Your task to perform on an android device: Check the news Image 0: 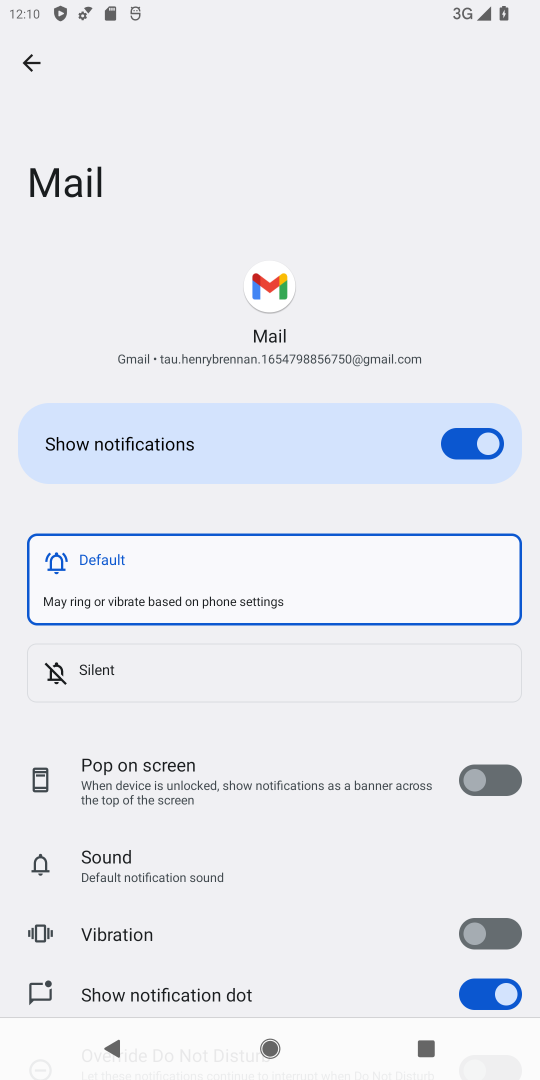
Step 0: drag from (271, 841) to (496, 486)
Your task to perform on an android device: Check the news Image 1: 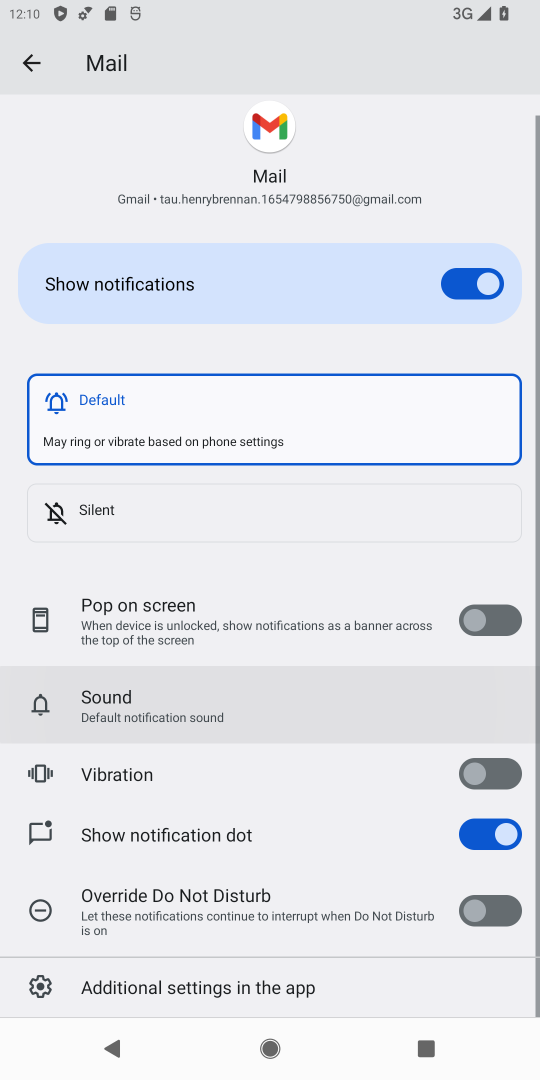
Step 1: press home button
Your task to perform on an android device: Check the news Image 2: 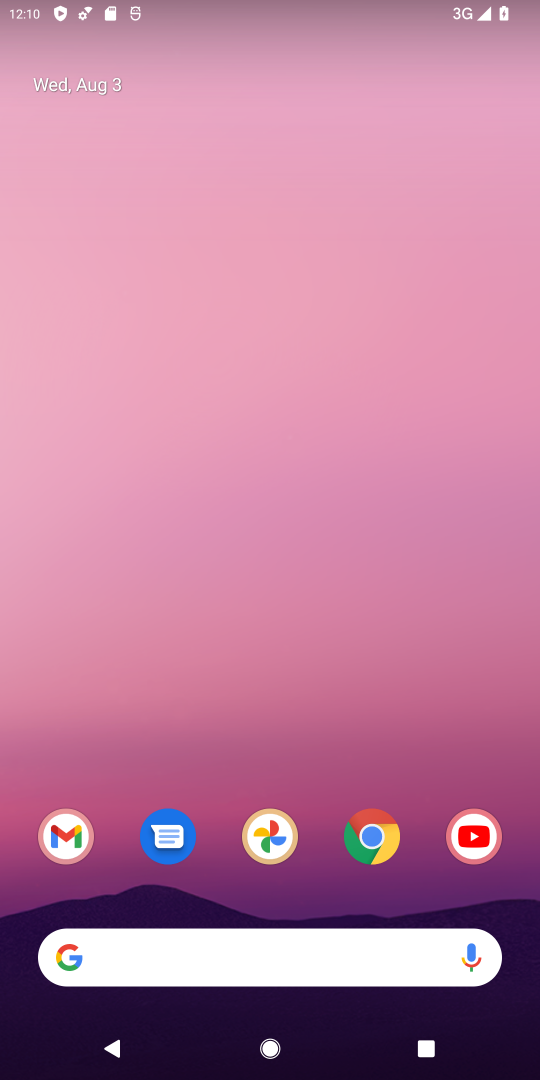
Step 2: drag from (237, 888) to (233, 0)
Your task to perform on an android device: Check the news Image 3: 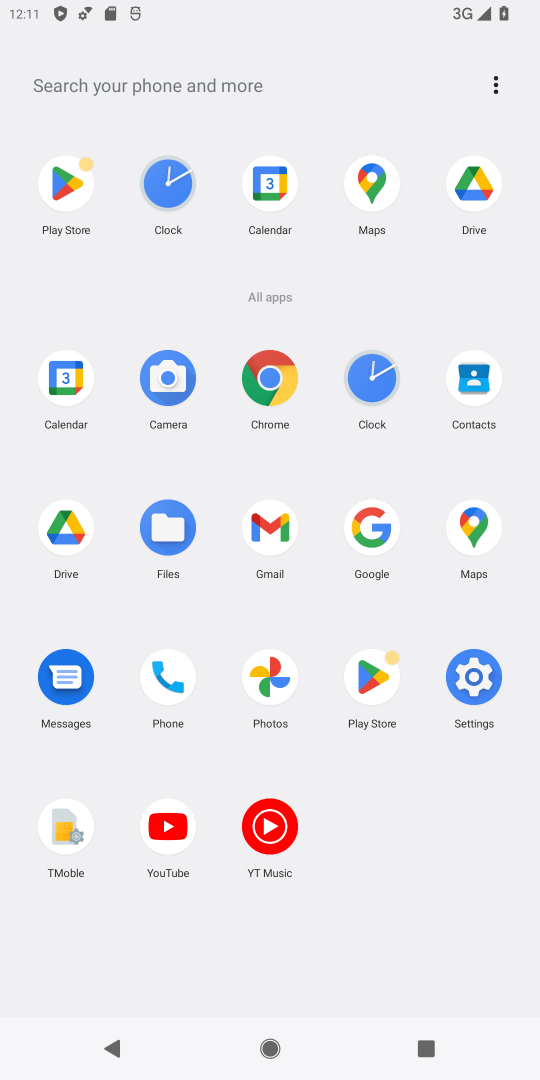
Step 3: click (159, 88)
Your task to perform on an android device: Check the news Image 4: 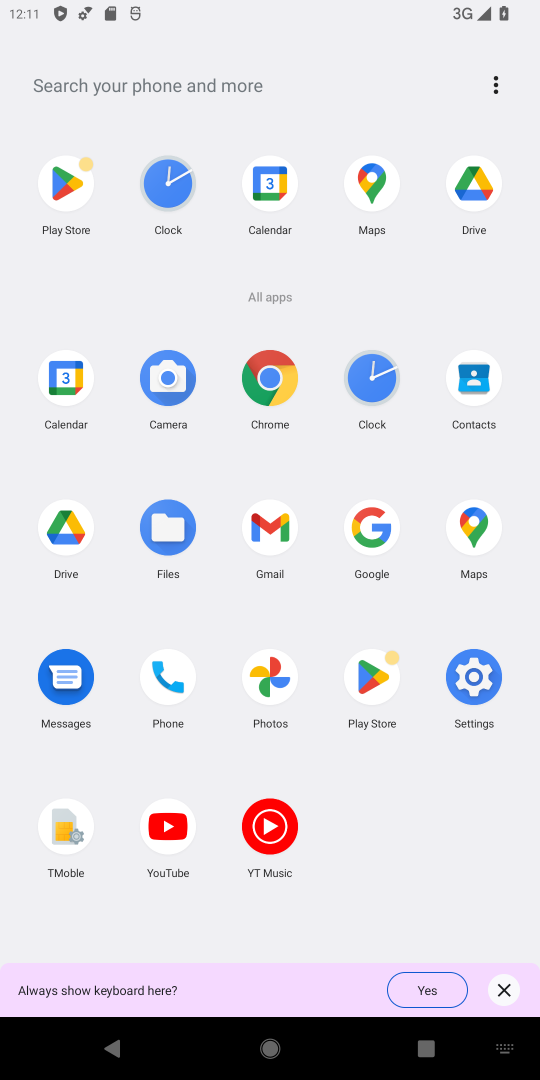
Step 4: type "news"
Your task to perform on an android device: Check the news Image 5: 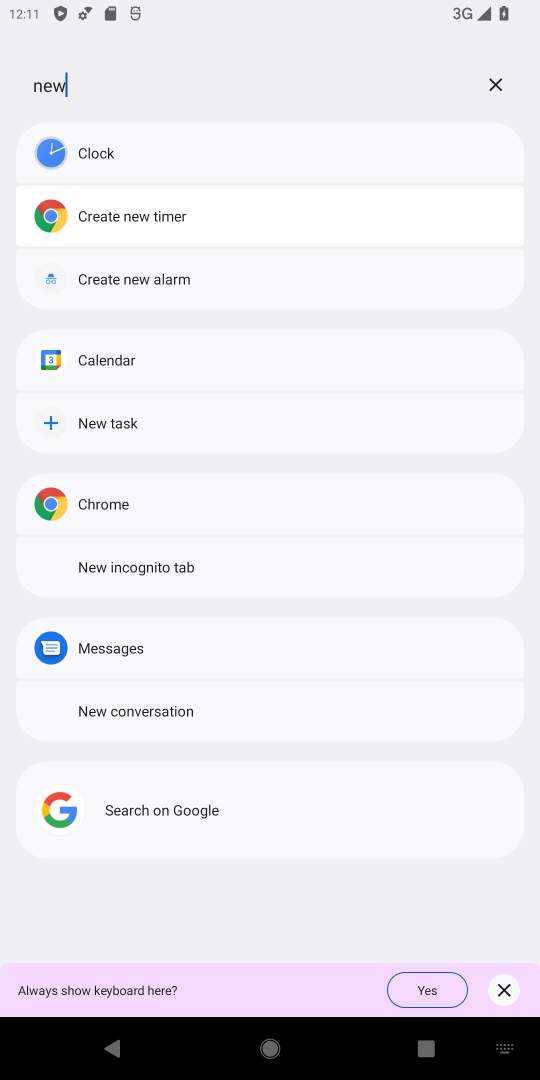
Step 5: type ""
Your task to perform on an android device: Check the news Image 6: 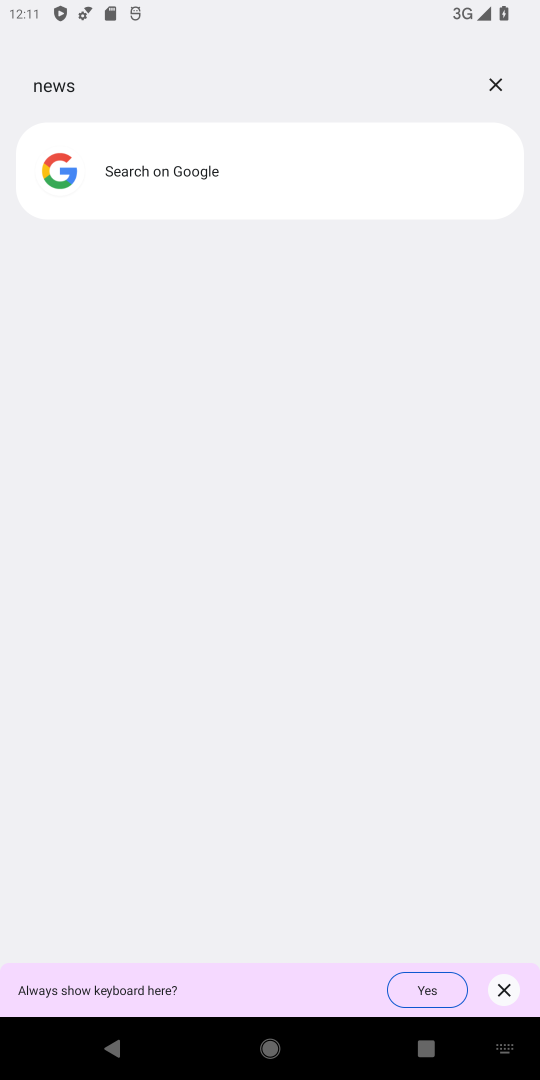
Step 6: click (98, 162)
Your task to perform on an android device: Check the news Image 7: 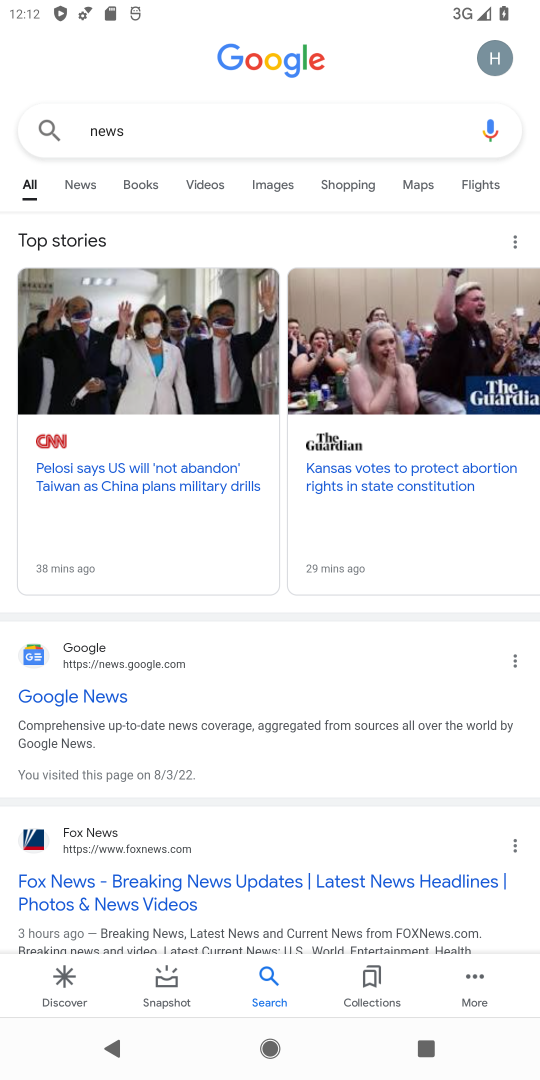
Step 7: task complete